Your task to perform on an android device: Open Yahoo.com Image 0: 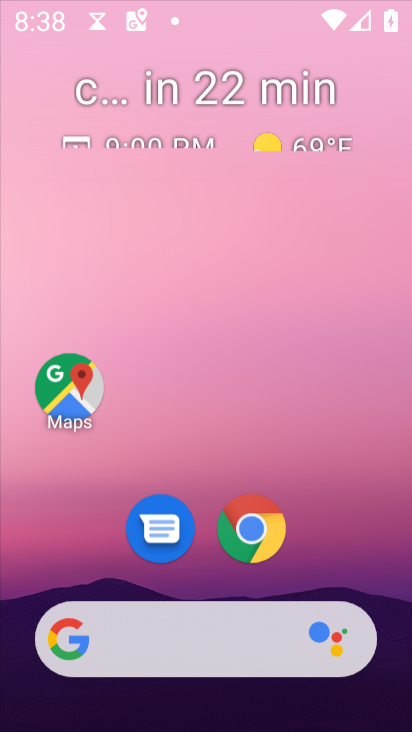
Step 0: click (295, 95)
Your task to perform on an android device: Open Yahoo.com Image 1: 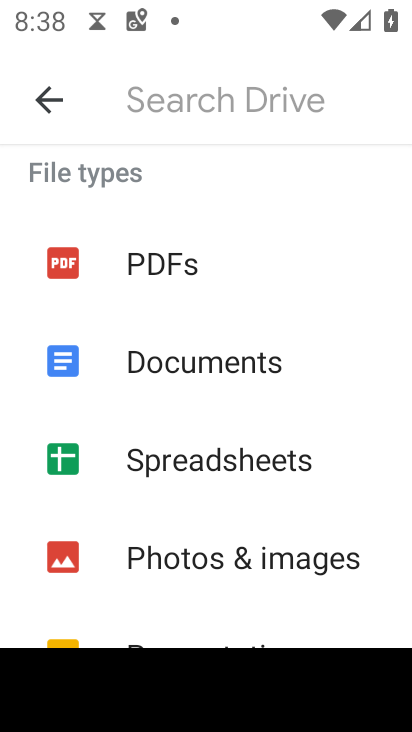
Step 1: press home button
Your task to perform on an android device: Open Yahoo.com Image 2: 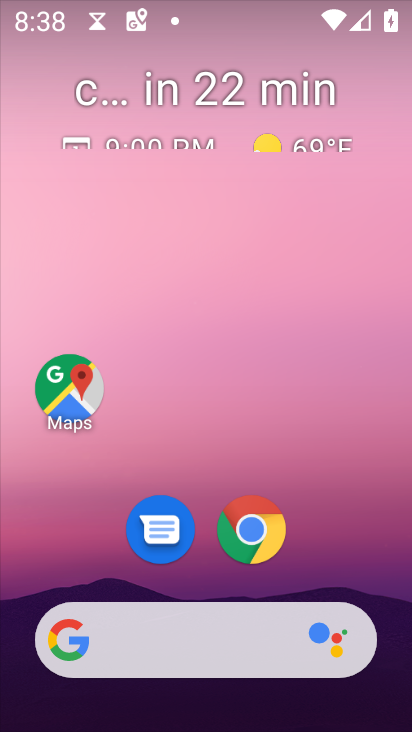
Step 2: click (247, 526)
Your task to perform on an android device: Open Yahoo.com Image 3: 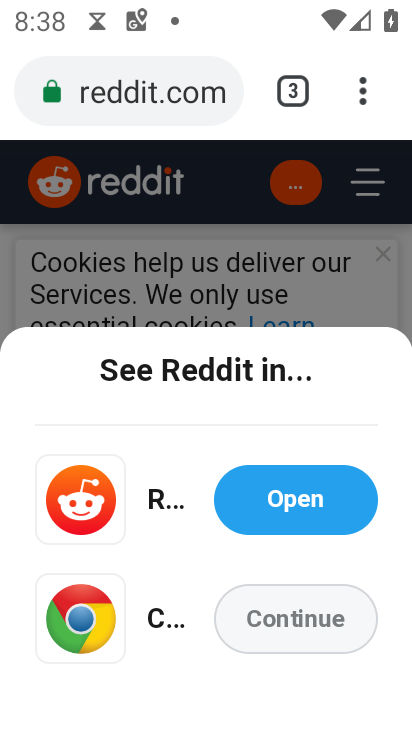
Step 3: click (287, 86)
Your task to perform on an android device: Open Yahoo.com Image 4: 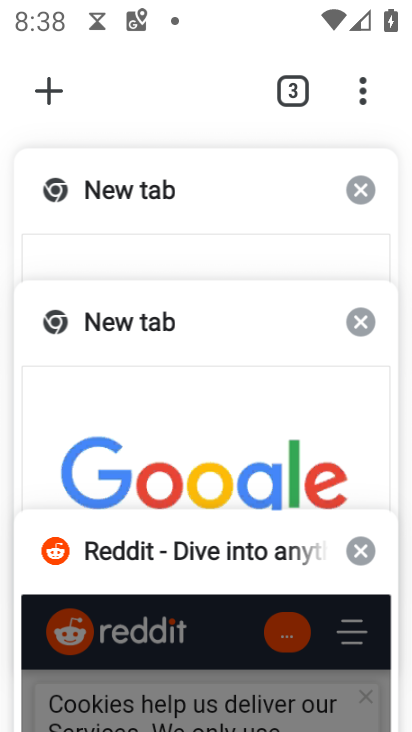
Step 4: click (203, 401)
Your task to perform on an android device: Open Yahoo.com Image 5: 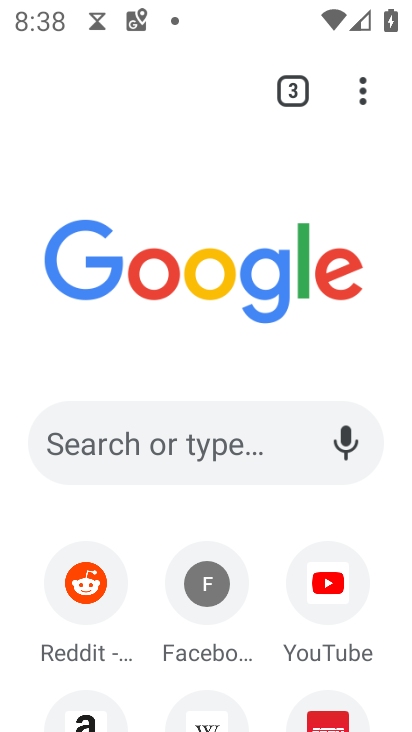
Step 5: drag from (259, 674) to (295, 350)
Your task to perform on an android device: Open Yahoo.com Image 6: 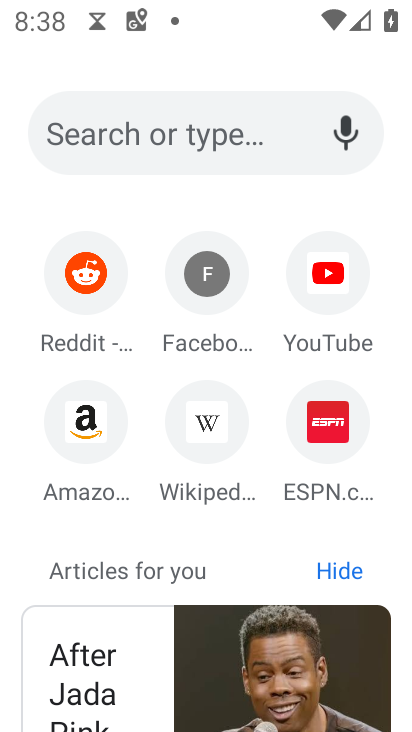
Step 6: click (120, 110)
Your task to perform on an android device: Open Yahoo.com Image 7: 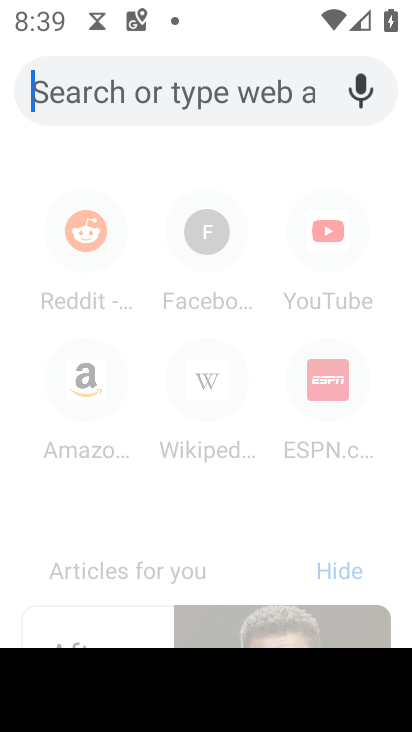
Step 7: type "Yahoo.com"
Your task to perform on an android device: Open Yahoo.com Image 8: 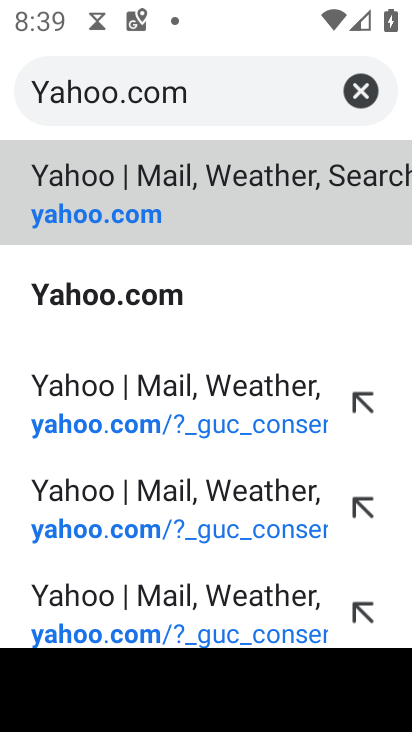
Step 8: click (130, 296)
Your task to perform on an android device: Open Yahoo.com Image 9: 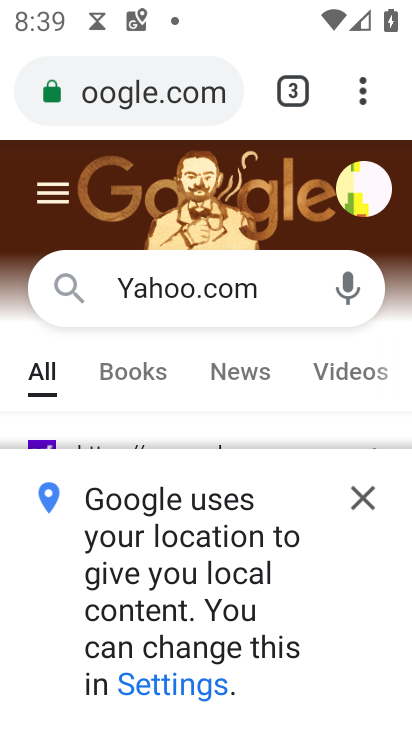
Step 9: click (354, 496)
Your task to perform on an android device: Open Yahoo.com Image 10: 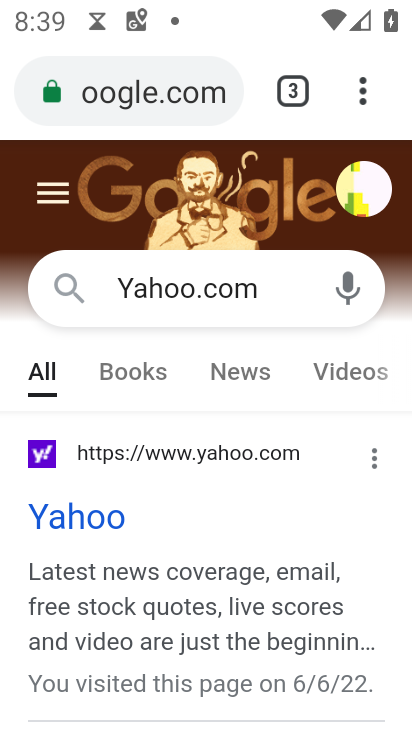
Step 10: click (131, 507)
Your task to perform on an android device: Open Yahoo.com Image 11: 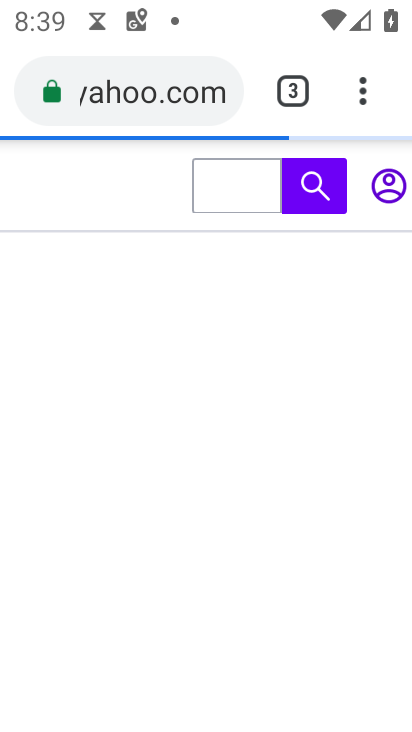
Step 11: click (110, 524)
Your task to perform on an android device: Open Yahoo.com Image 12: 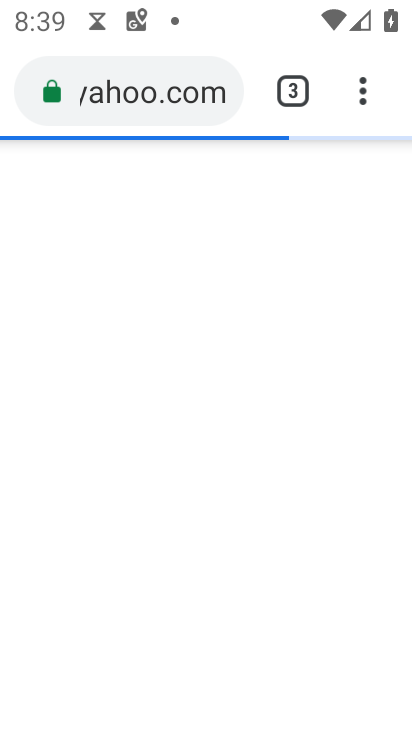
Step 12: task complete